Your task to perform on an android device: Open Google Chrome and open the bookmarks view Image 0: 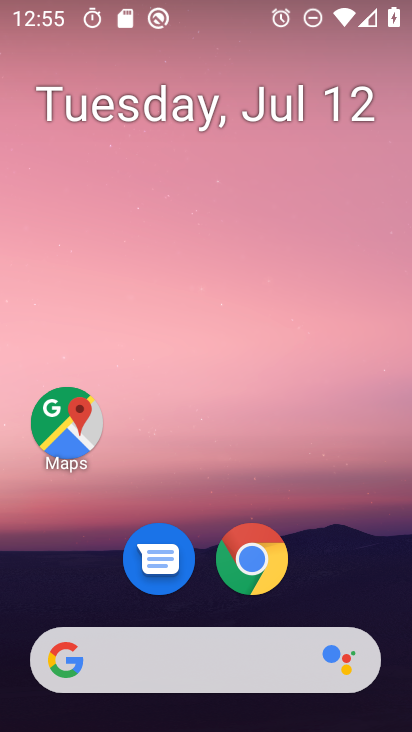
Step 0: click (267, 567)
Your task to perform on an android device: Open Google Chrome and open the bookmarks view Image 1: 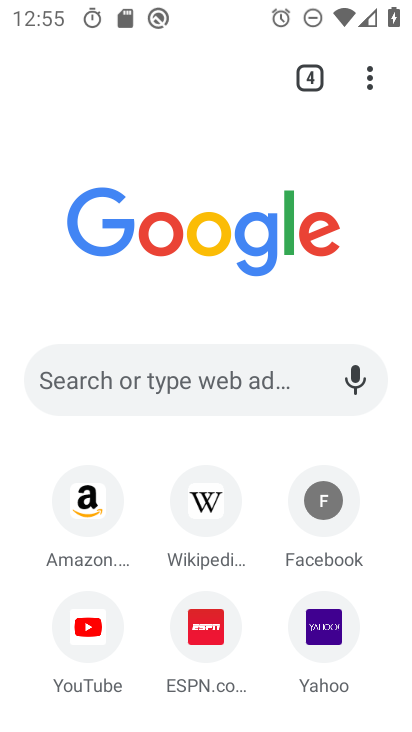
Step 1: task complete